Your task to perform on an android device: Empty the shopping cart on bestbuy.com. Search for usb-c to usb-b on bestbuy.com, select the first entry, and add it to the cart. Image 0: 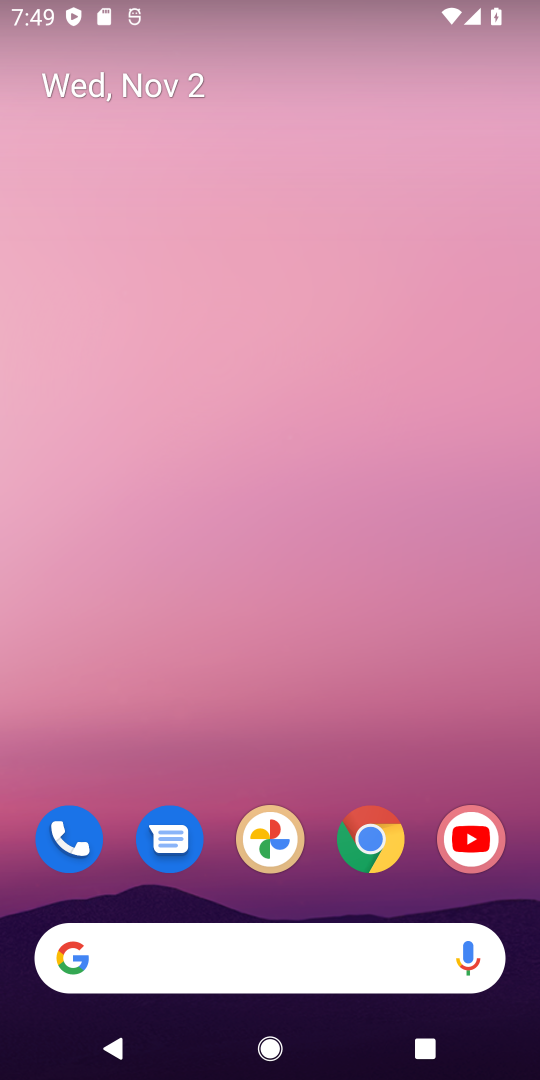
Step 0: click (371, 836)
Your task to perform on an android device: Empty the shopping cart on bestbuy.com. Search for usb-c to usb-b on bestbuy.com, select the first entry, and add it to the cart. Image 1: 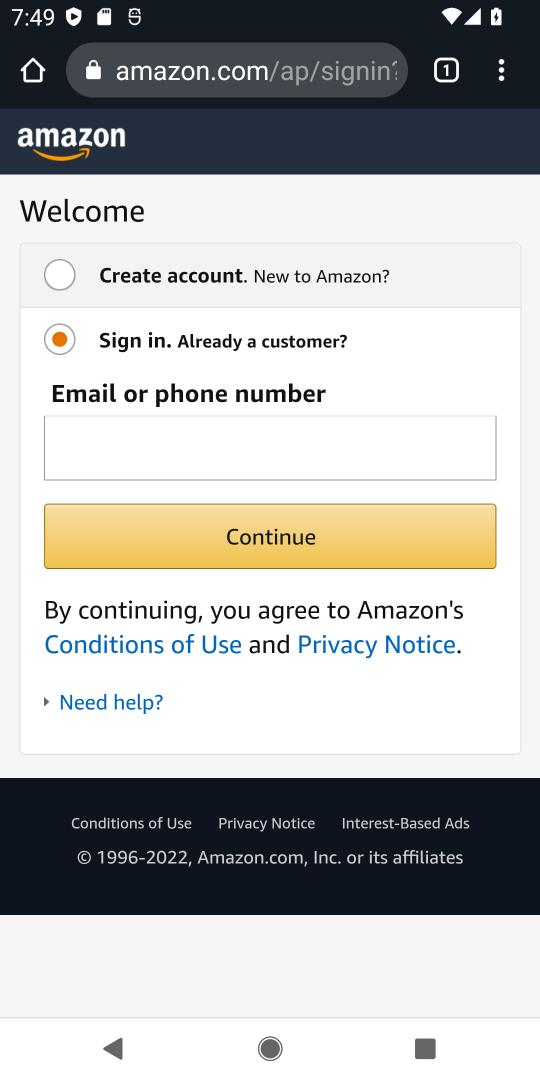
Step 1: click (304, 75)
Your task to perform on an android device: Empty the shopping cart on bestbuy.com. Search for usb-c to usb-b on bestbuy.com, select the first entry, and add it to the cart. Image 2: 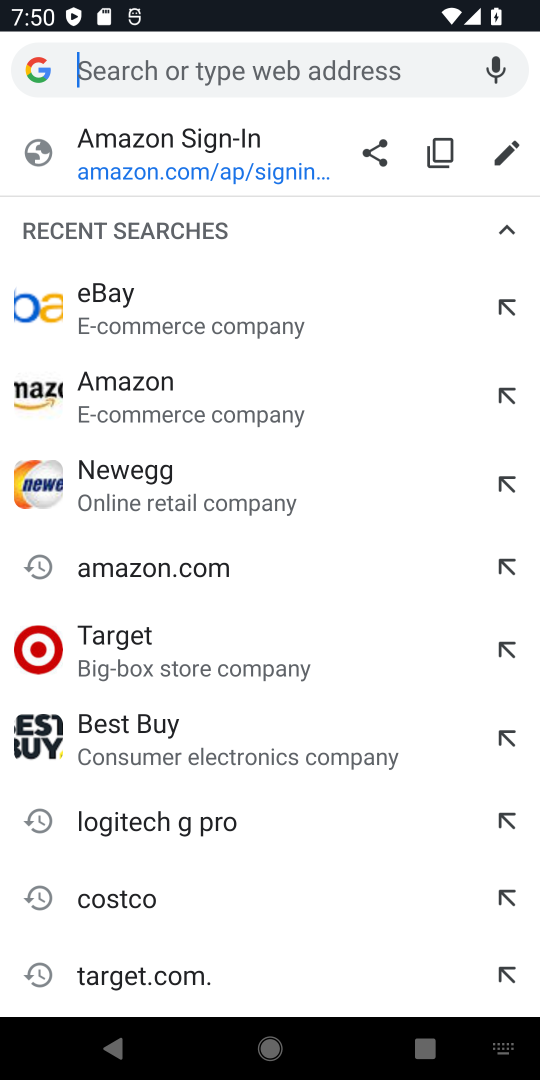
Step 2: type "bestbuy.com"
Your task to perform on an android device: Empty the shopping cart on bestbuy.com. Search for usb-c to usb-b on bestbuy.com, select the first entry, and add it to the cart. Image 3: 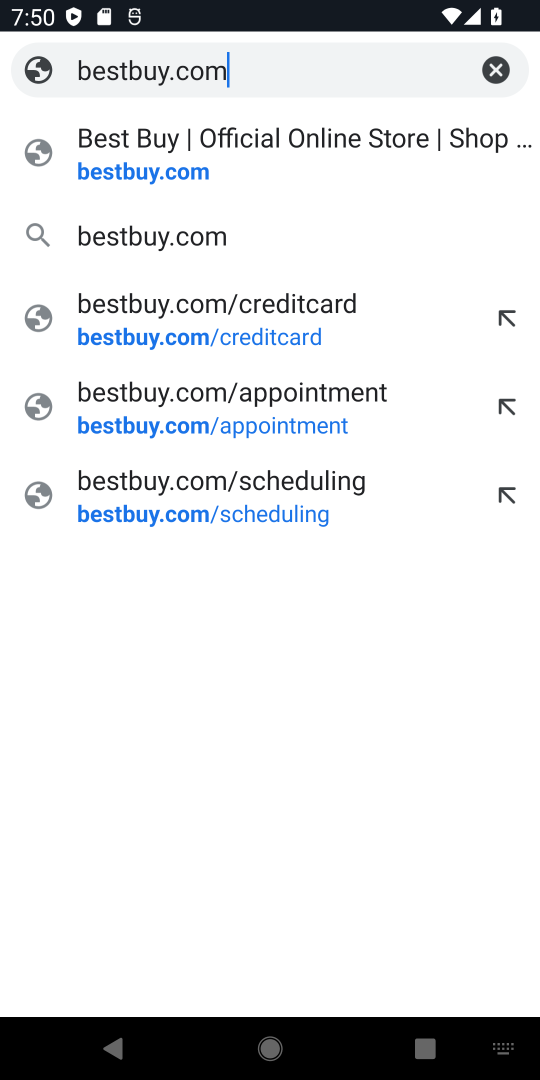
Step 3: click (161, 243)
Your task to perform on an android device: Empty the shopping cart on bestbuy.com. Search for usb-c to usb-b on bestbuy.com, select the first entry, and add it to the cart. Image 4: 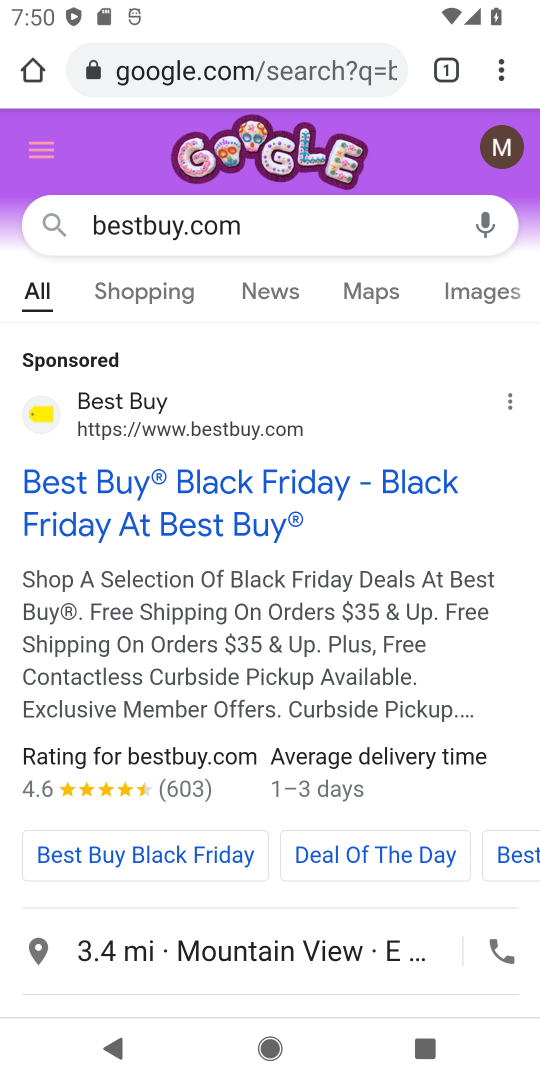
Step 4: drag from (324, 754) to (358, 359)
Your task to perform on an android device: Empty the shopping cart on bestbuy.com. Search for usb-c to usb-b on bestbuy.com, select the first entry, and add it to the cart. Image 5: 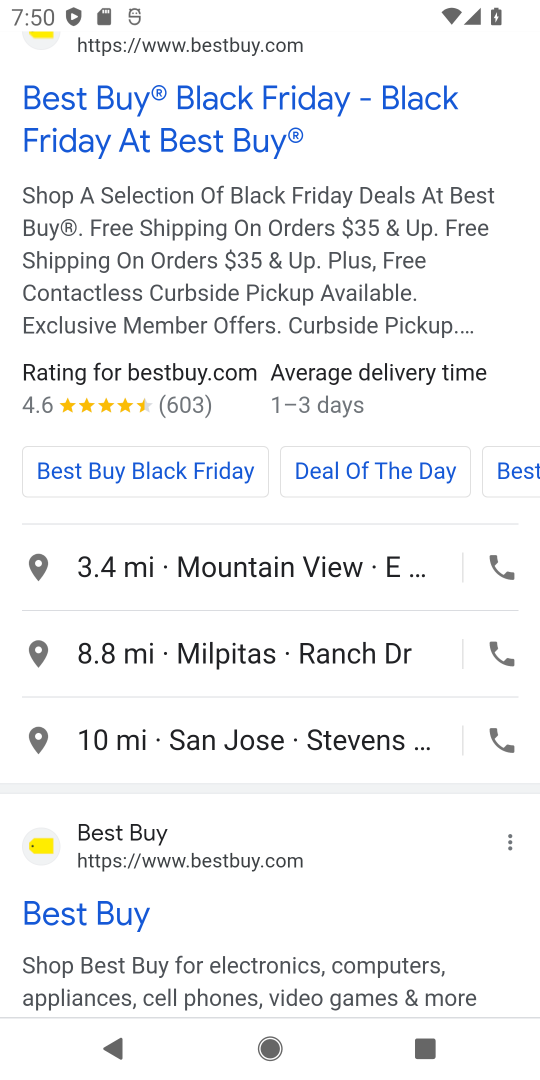
Step 5: click (158, 897)
Your task to perform on an android device: Empty the shopping cart on bestbuy.com. Search for usb-c to usb-b on bestbuy.com, select the first entry, and add it to the cart. Image 6: 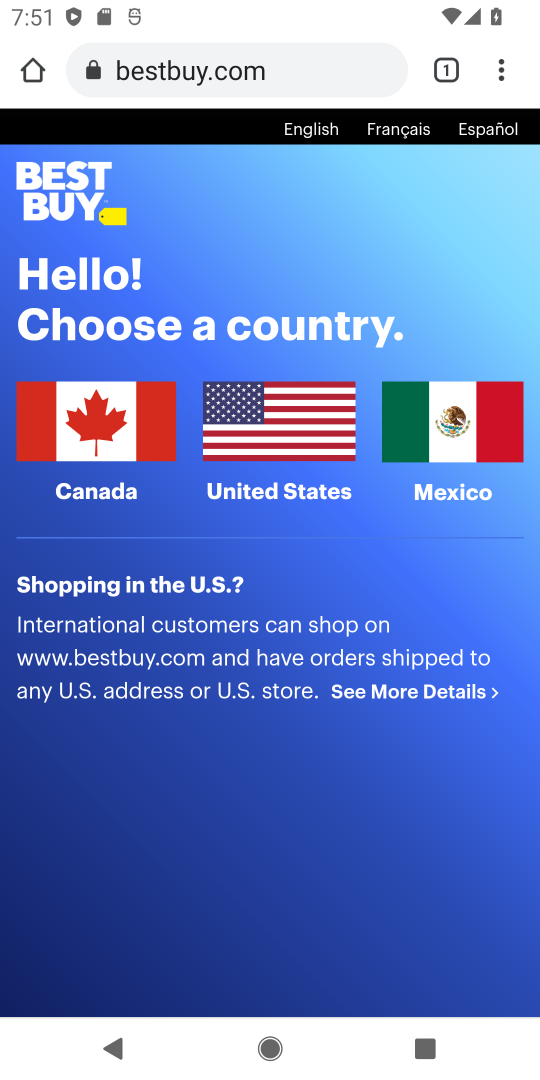
Step 6: click (292, 428)
Your task to perform on an android device: Empty the shopping cart on bestbuy.com. Search for usb-c to usb-b on bestbuy.com, select the first entry, and add it to the cart. Image 7: 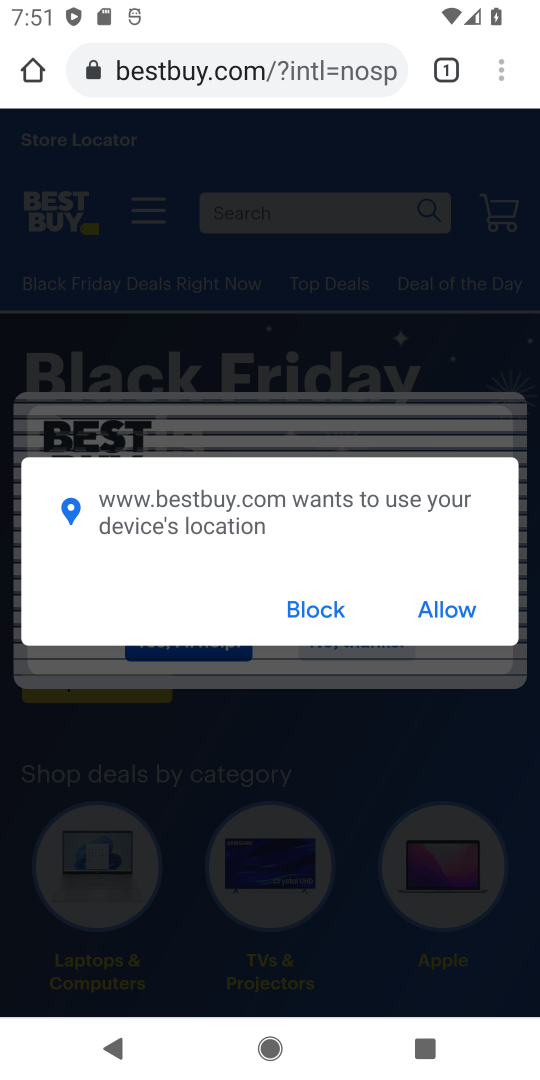
Step 7: click (440, 612)
Your task to perform on an android device: Empty the shopping cart on bestbuy.com. Search for usb-c to usb-b on bestbuy.com, select the first entry, and add it to the cart. Image 8: 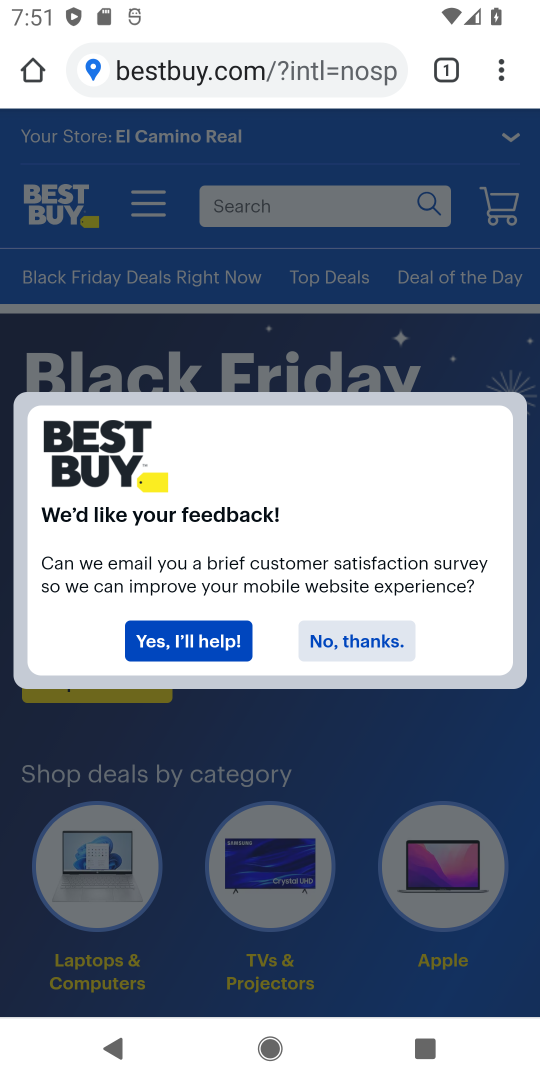
Step 8: click (373, 643)
Your task to perform on an android device: Empty the shopping cart on bestbuy.com. Search for usb-c to usb-b on bestbuy.com, select the first entry, and add it to the cart. Image 9: 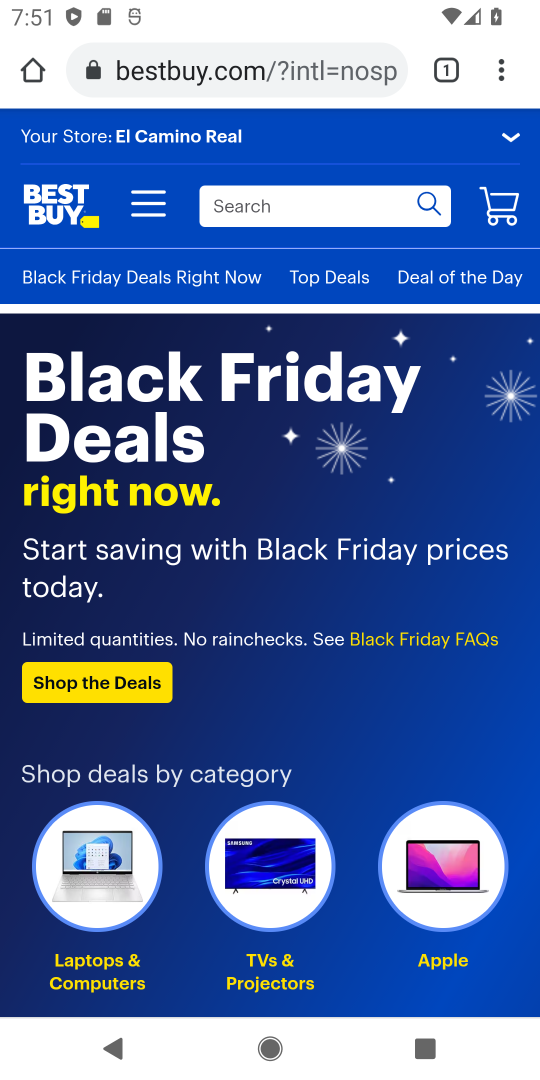
Step 9: click (504, 206)
Your task to perform on an android device: Empty the shopping cart on bestbuy.com. Search for usb-c to usb-b on bestbuy.com, select the first entry, and add it to the cart. Image 10: 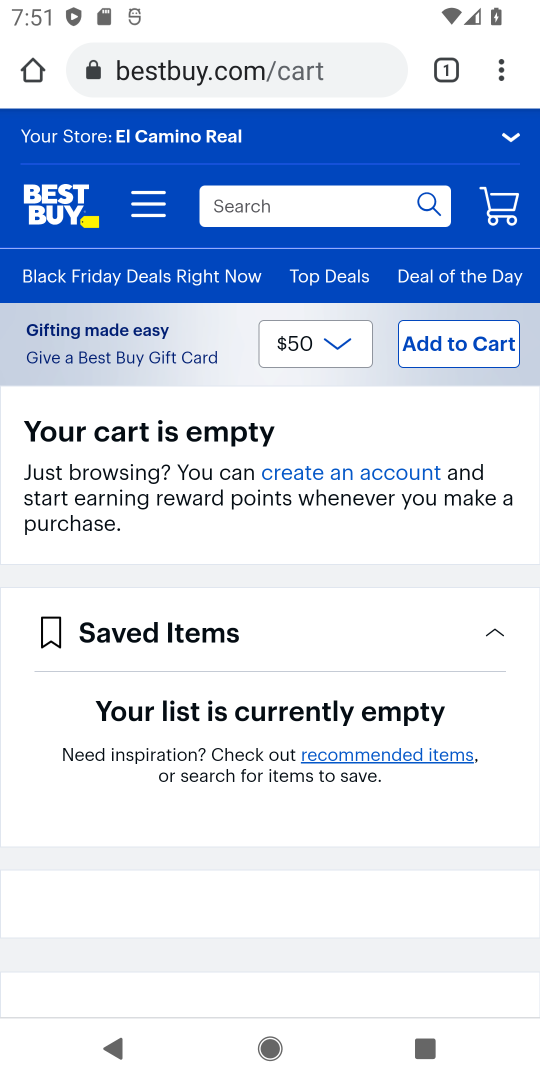
Step 10: click (327, 212)
Your task to perform on an android device: Empty the shopping cart on bestbuy.com. Search for usb-c to usb-b on bestbuy.com, select the first entry, and add it to the cart. Image 11: 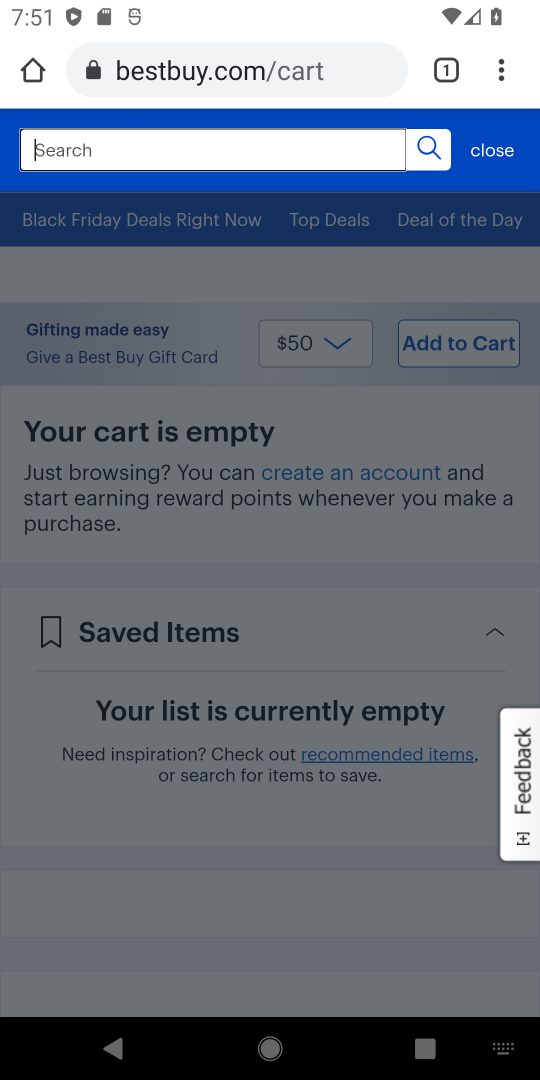
Step 11: type "usb-c to usb-b"
Your task to perform on an android device: Empty the shopping cart on bestbuy.com. Search for usb-c to usb-b on bestbuy.com, select the first entry, and add it to the cart. Image 12: 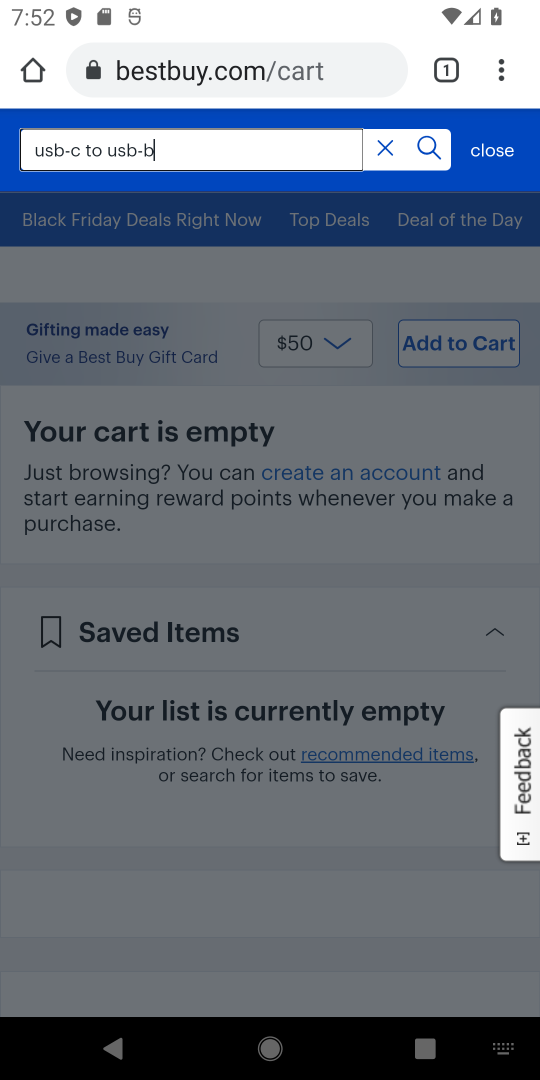
Step 12: click (425, 145)
Your task to perform on an android device: Empty the shopping cart on bestbuy.com. Search for usb-c to usb-b on bestbuy.com, select the first entry, and add it to the cart. Image 13: 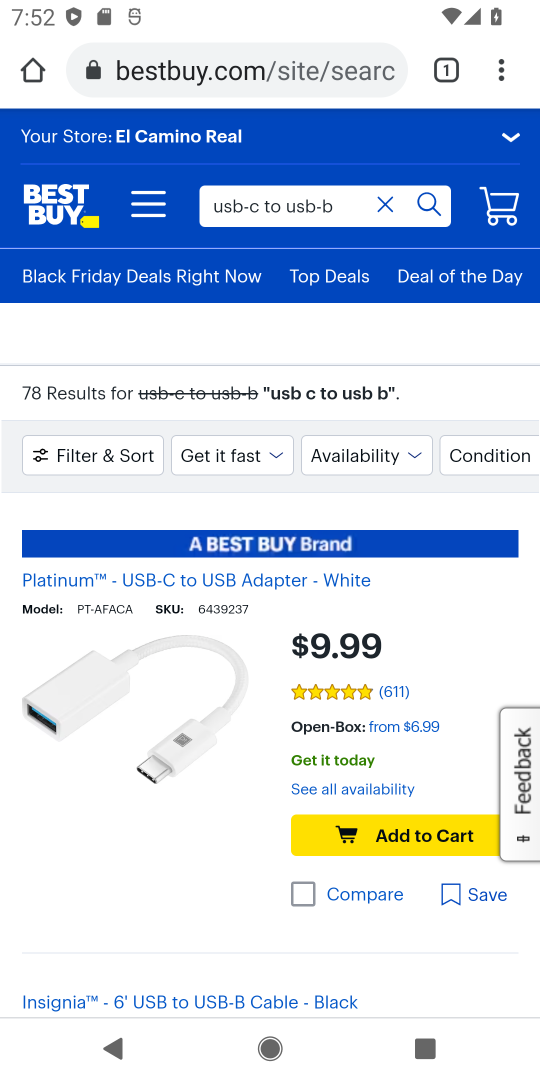
Step 13: click (418, 835)
Your task to perform on an android device: Empty the shopping cart on bestbuy.com. Search for usb-c to usb-b on bestbuy.com, select the first entry, and add it to the cart. Image 14: 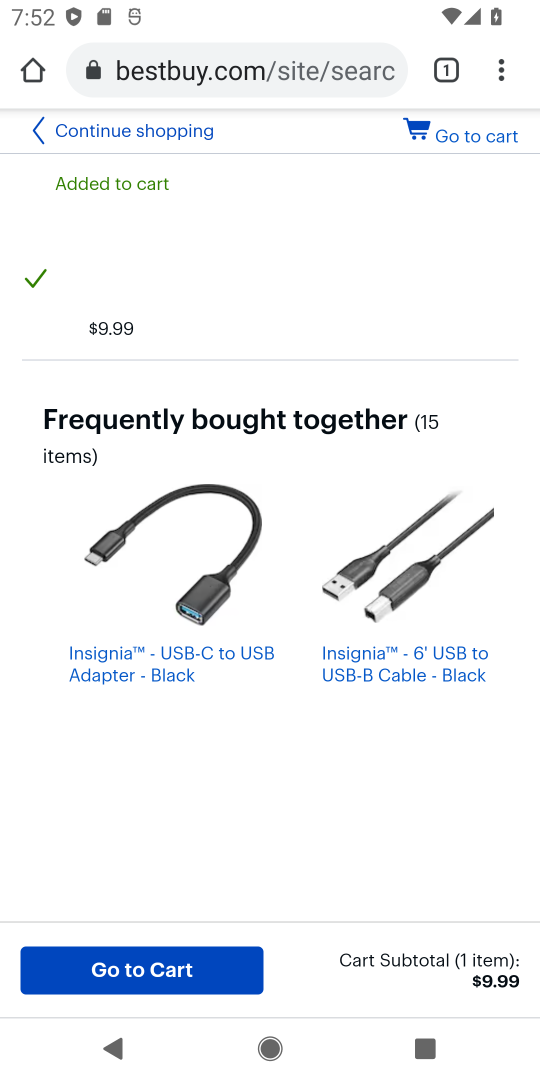
Step 14: click (141, 972)
Your task to perform on an android device: Empty the shopping cart on bestbuy.com. Search for usb-c to usb-b on bestbuy.com, select the first entry, and add it to the cart. Image 15: 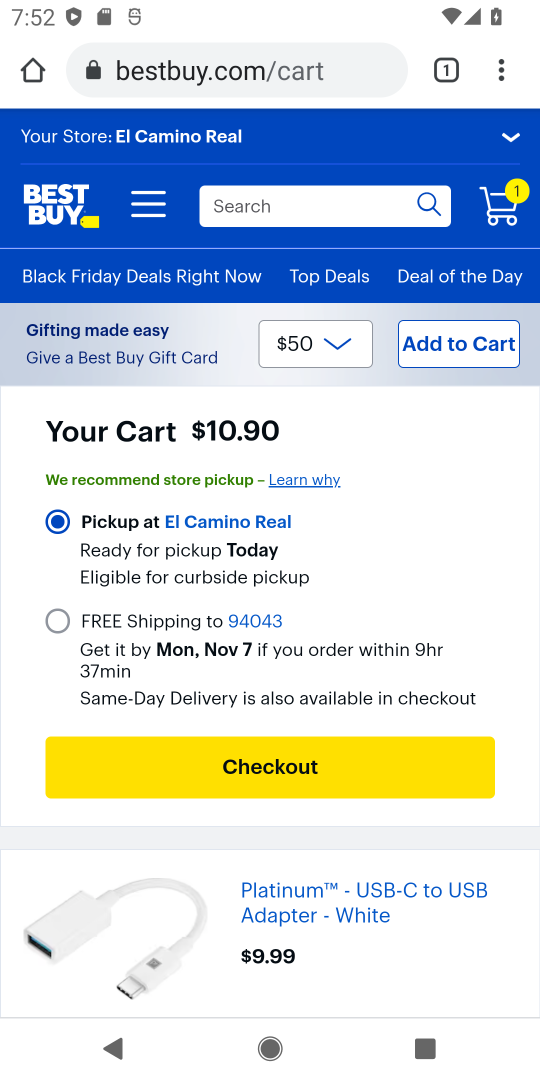
Step 15: task complete